Your task to perform on an android device: Open Youtube and go to "Your channel" Image 0: 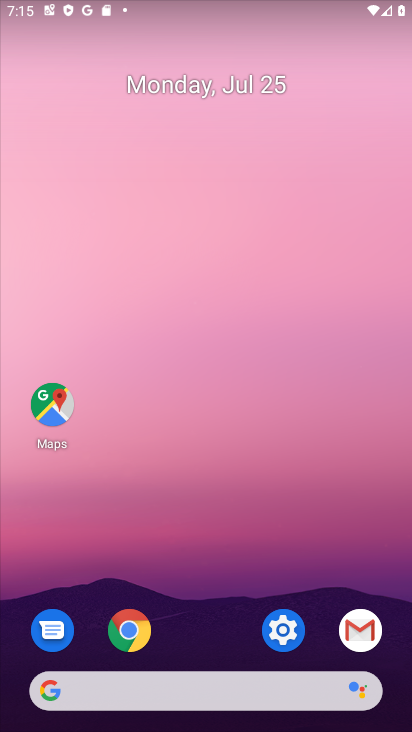
Step 0: drag from (251, 714) to (303, 68)
Your task to perform on an android device: Open Youtube and go to "Your channel" Image 1: 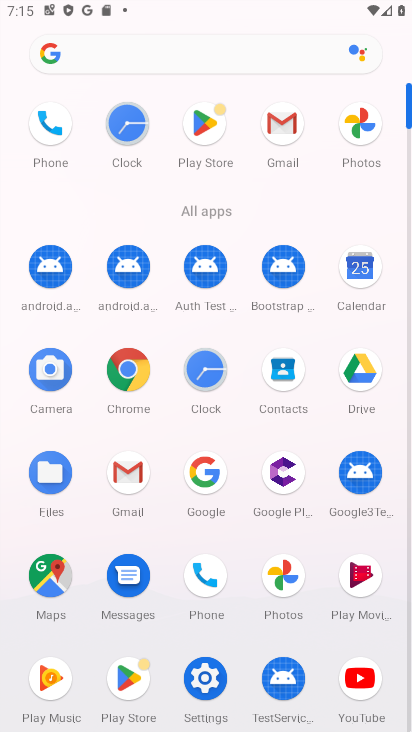
Step 1: click (358, 686)
Your task to perform on an android device: Open Youtube and go to "Your channel" Image 2: 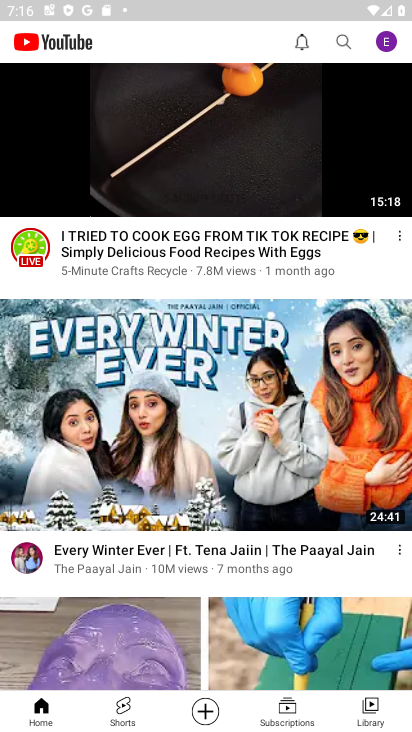
Step 2: click (386, 45)
Your task to perform on an android device: Open Youtube and go to "Your channel" Image 3: 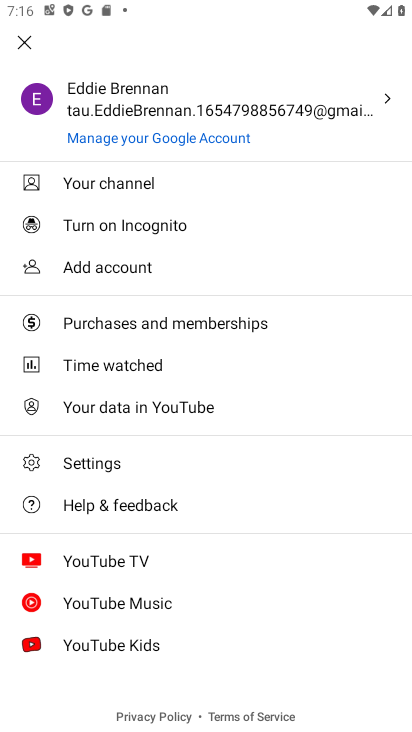
Step 3: click (124, 188)
Your task to perform on an android device: Open Youtube and go to "Your channel" Image 4: 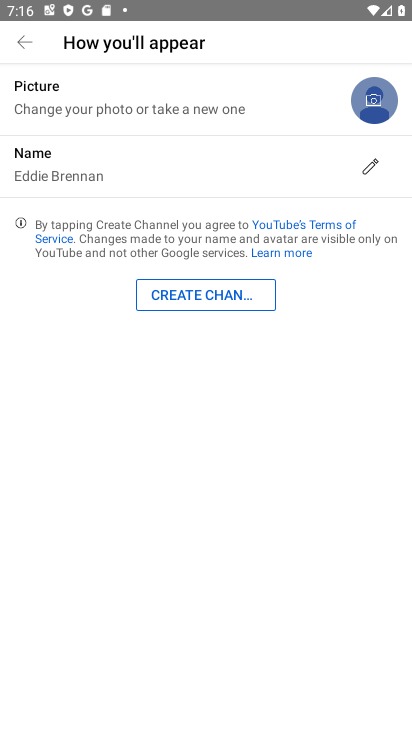
Step 4: task complete